Your task to perform on an android device: turn off location history Image 0: 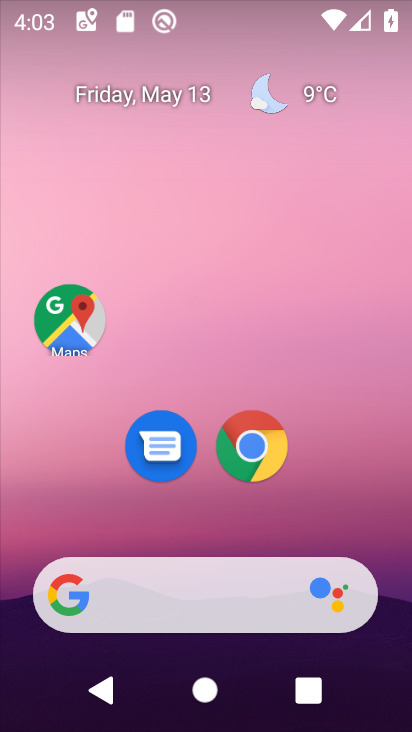
Step 0: drag from (177, 351) to (196, 73)
Your task to perform on an android device: turn off location history Image 1: 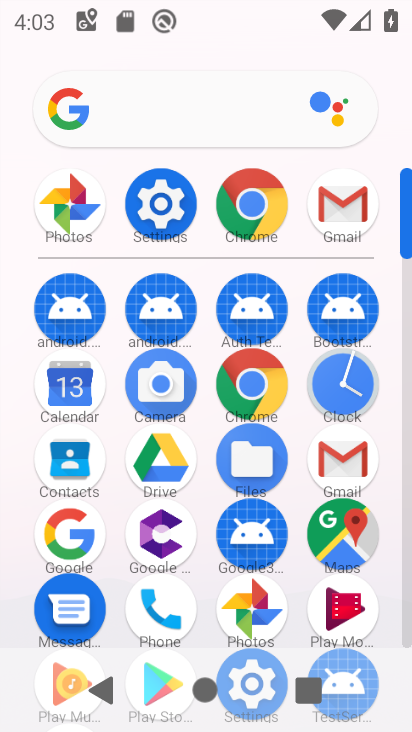
Step 1: click (142, 213)
Your task to perform on an android device: turn off location history Image 2: 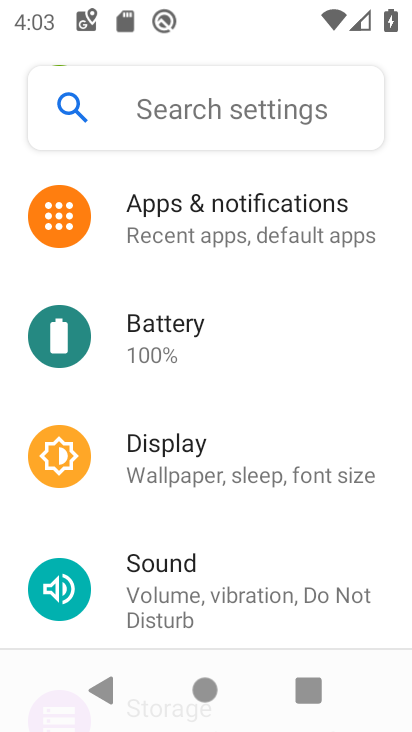
Step 2: drag from (290, 581) to (293, 118)
Your task to perform on an android device: turn off location history Image 3: 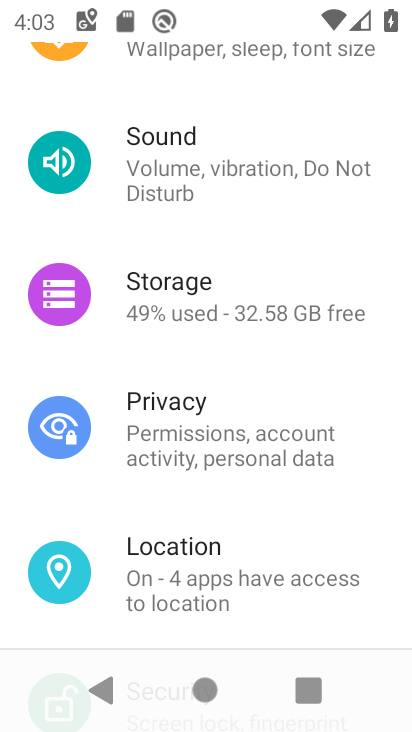
Step 3: click (258, 564)
Your task to perform on an android device: turn off location history Image 4: 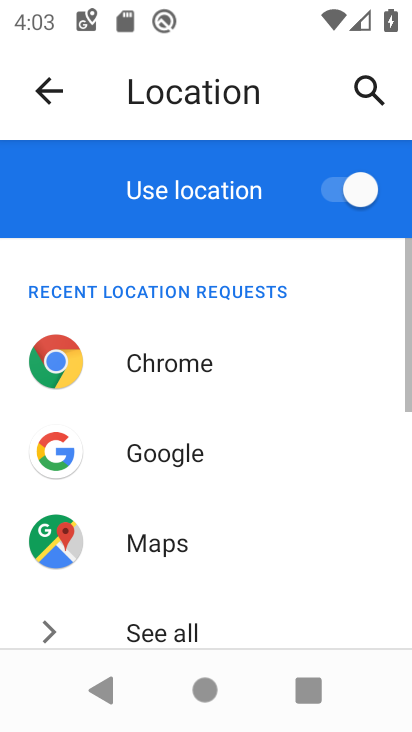
Step 4: drag from (264, 601) to (286, 176)
Your task to perform on an android device: turn off location history Image 5: 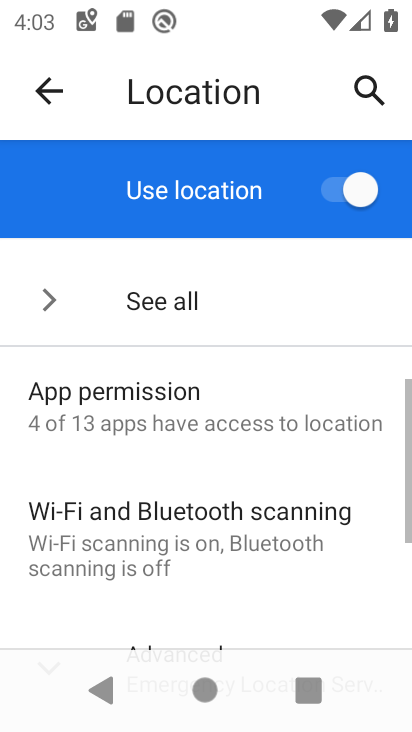
Step 5: drag from (223, 547) to (276, 166)
Your task to perform on an android device: turn off location history Image 6: 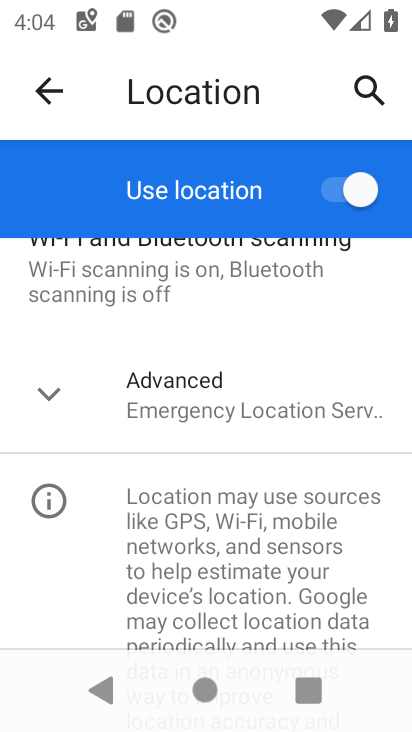
Step 6: click (198, 403)
Your task to perform on an android device: turn off location history Image 7: 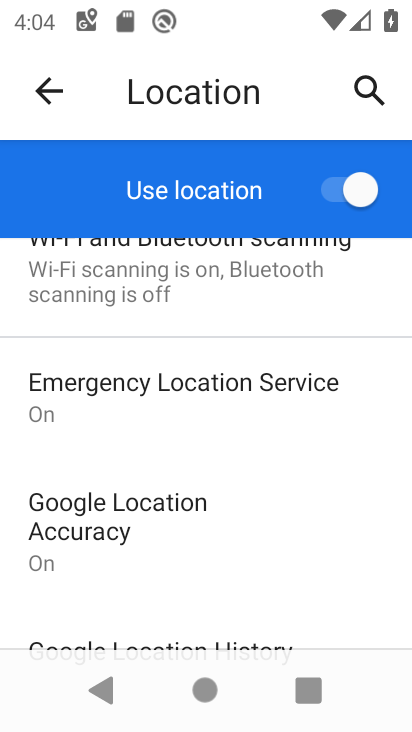
Step 7: drag from (188, 441) to (225, 328)
Your task to perform on an android device: turn off location history Image 8: 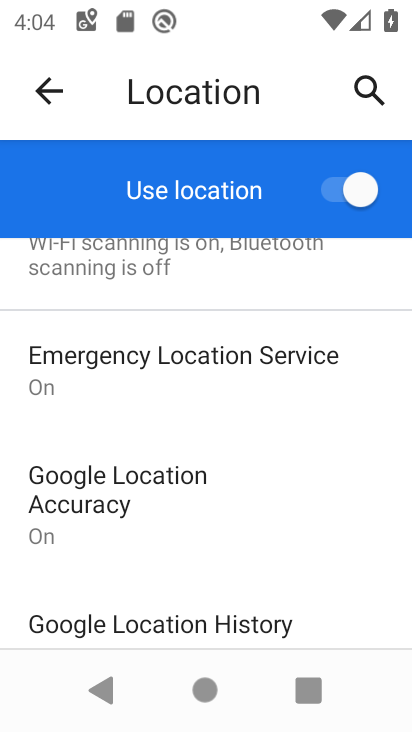
Step 8: drag from (198, 508) to (225, 359)
Your task to perform on an android device: turn off location history Image 9: 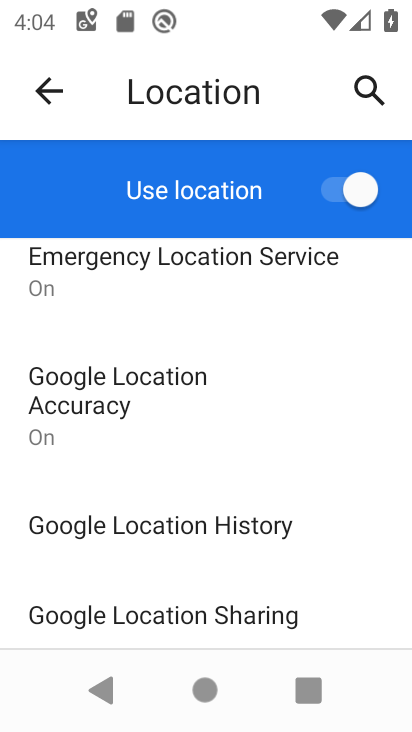
Step 9: click (211, 527)
Your task to perform on an android device: turn off location history Image 10: 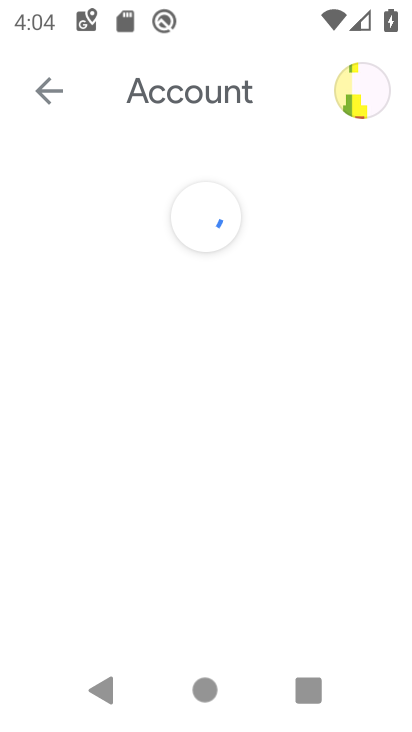
Step 10: drag from (198, 576) to (196, 204)
Your task to perform on an android device: turn off location history Image 11: 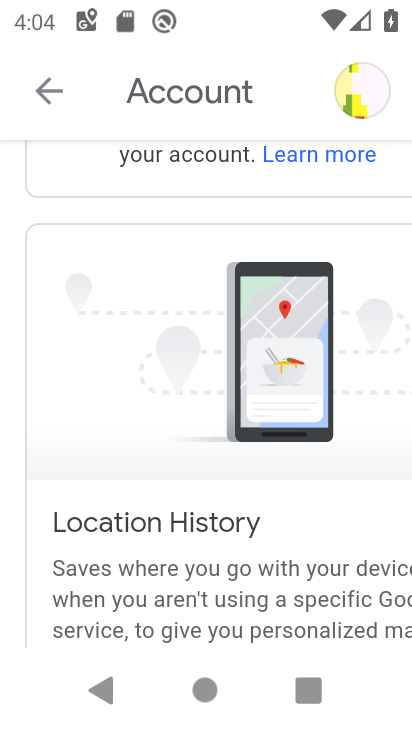
Step 11: drag from (205, 402) to (219, 91)
Your task to perform on an android device: turn off location history Image 12: 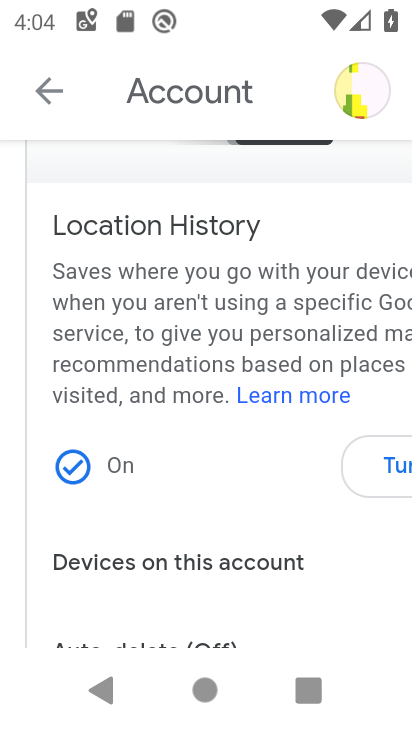
Step 12: click (391, 468)
Your task to perform on an android device: turn off location history Image 13: 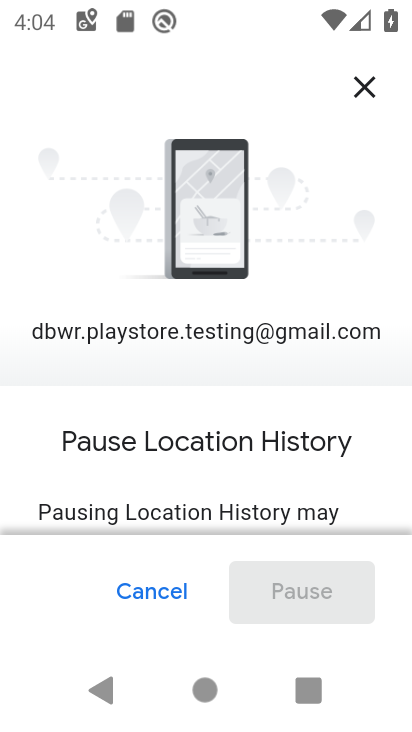
Step 13: drag from (278, 518) to (299, 32)
Your task to perform on an android device: turn off location history Image 14: 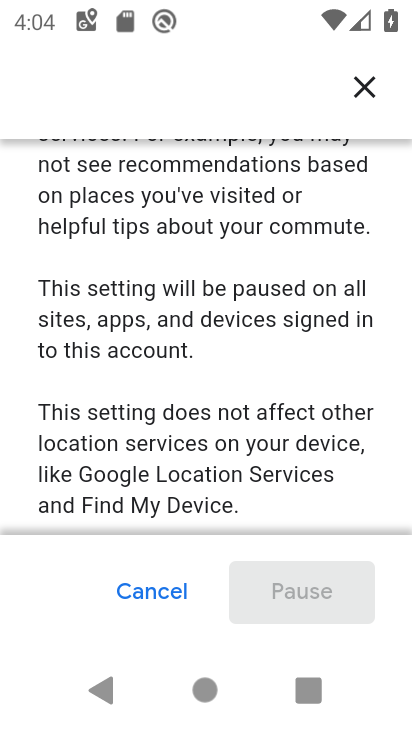
Step 14: drag from (267, 497) to (306, 99)
Your task to perform on an android device: turn off location history Image 15: 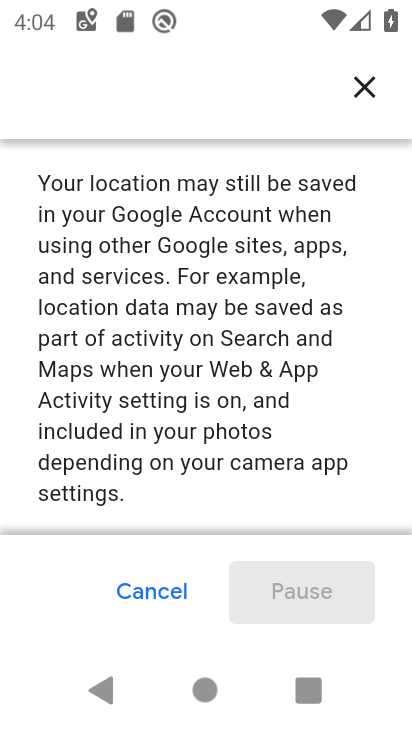
Step 15: drag from (269, 462) to (309, 67)
Your task to perform on an android device: turn off location history Image 16: 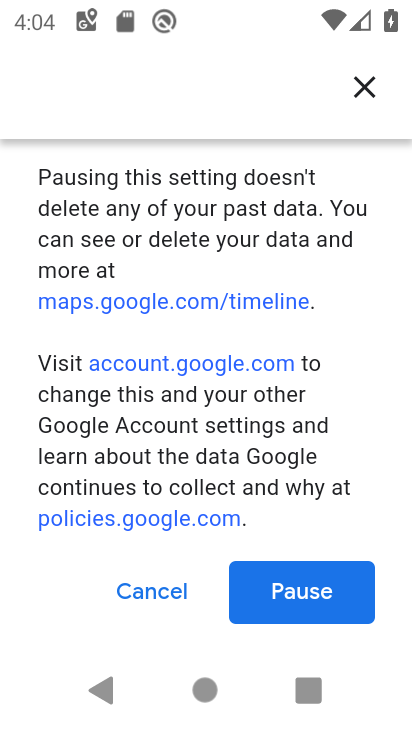
Step 16: drag from (265, 385) to (288, 96)
Your task to perform on an android device: turn off location history Image 17: 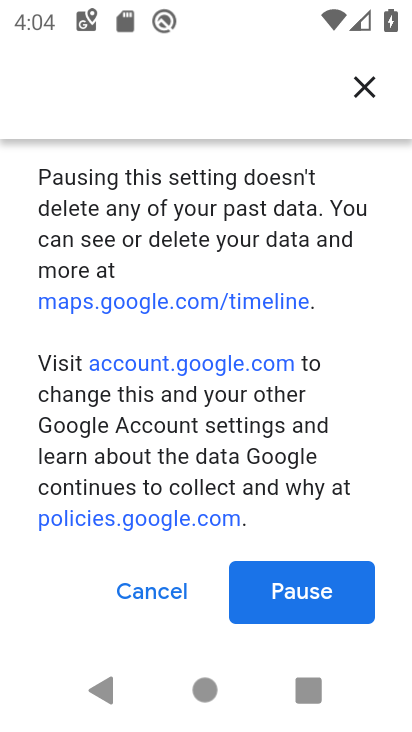
Step 17: click (273, 590)
Your task to perform on an android device: turn off location history Image 18: 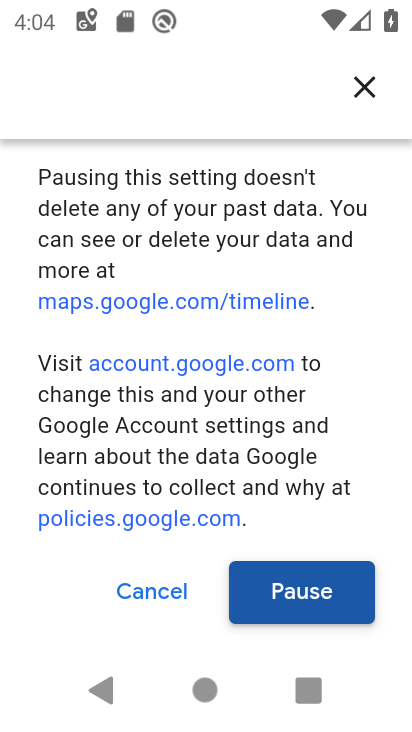
Step 18: click (301, 595)
Your task to perform on an android device: turn off location history Image 19: 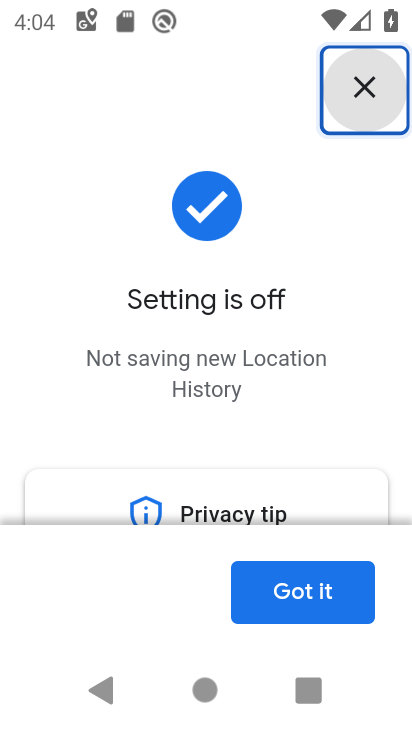
Step 19: click (301, 592)
Your task to perform on an android device: turn off location history Image 20: 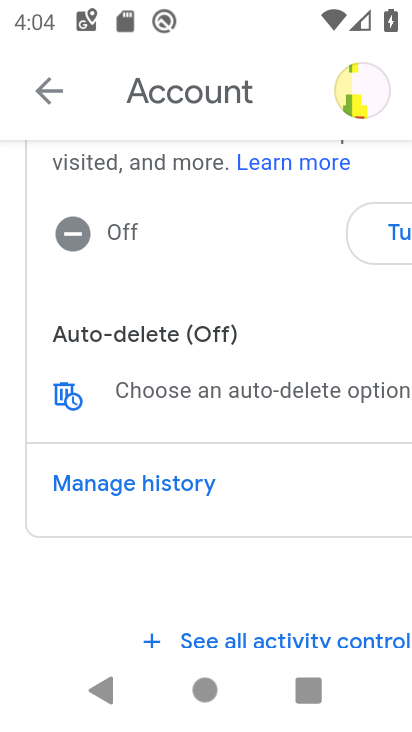
Step 20: task complete